Your task to perform on an android device: check the backup settings in the google photos Image 0: 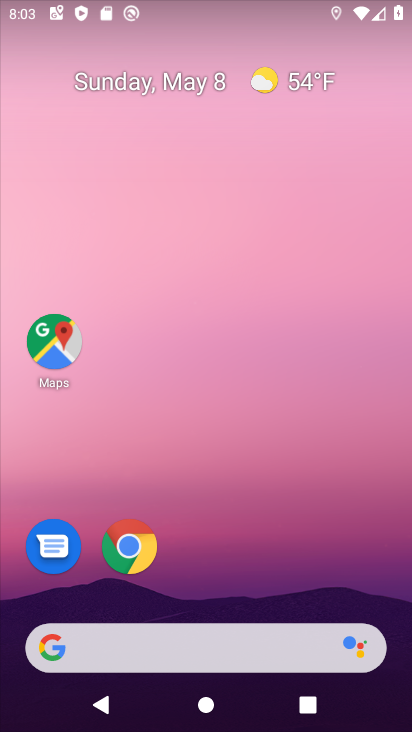
Step 0: drag from (400, 642) to (378, 237)
Your task to perform on an android device: check the backup settings in the google photos Image 1: 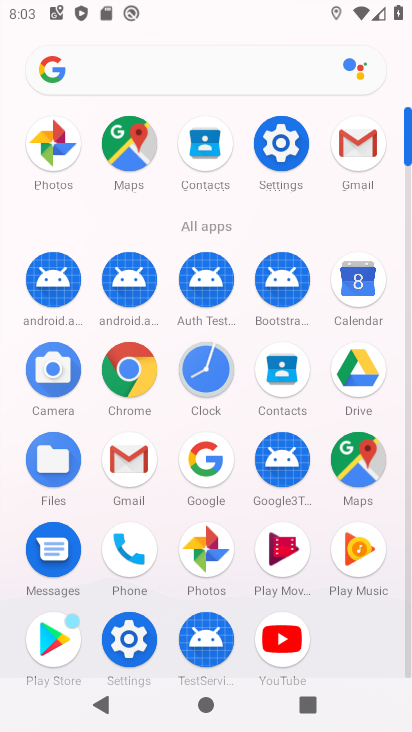
Step 1: click (201, 553)
Your task to perform on an android device: check the backup settings in the google photos Image 2: 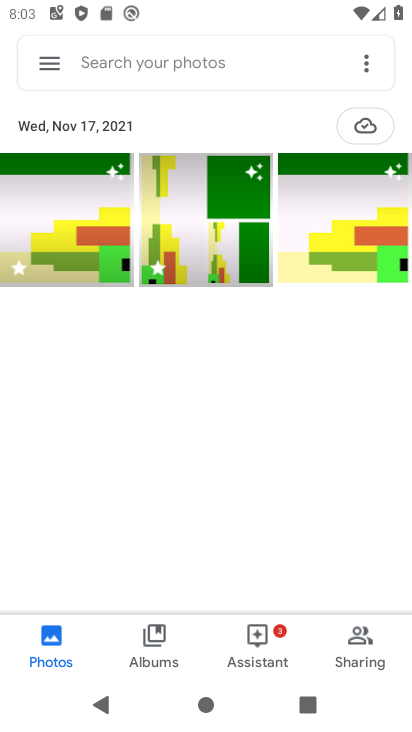
Step 2: click (46, 61)
Your task to perform on an android device: check the backup settings in the google photos Image 3: 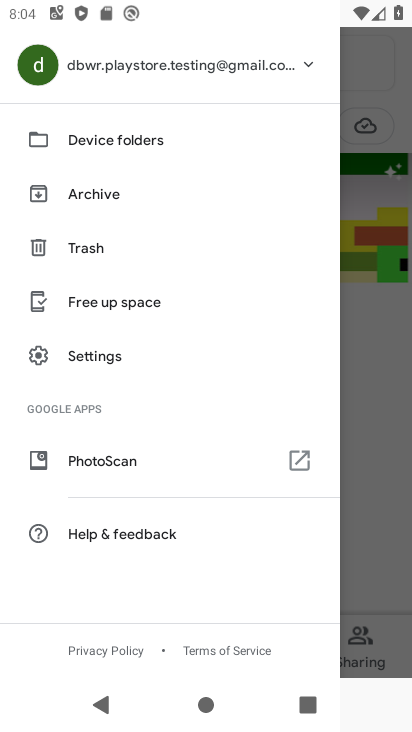
Step 3: click (114, 533)
Your task to perform on an android device: check the backup settings in the google photos Image 4: 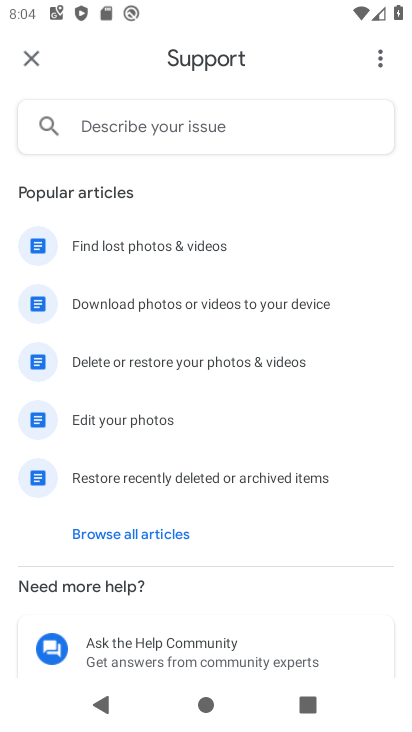
Step 4: press back button
Your task to perform on an android device: check the backup settings in the google photos Image 5: 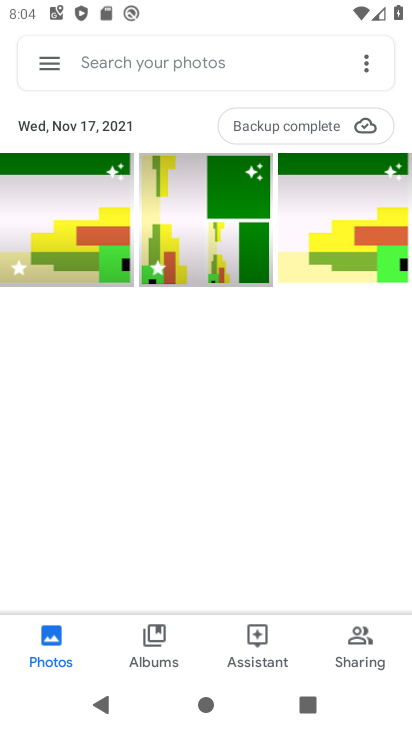
Step 5: click (33, 60)
Your task to perform on an android device: check the backup settings in the google photos Image 6: 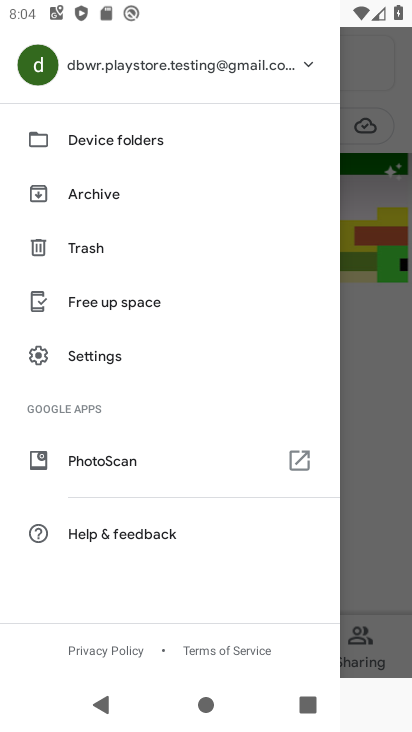
Step 6: click (78, 353)
Your task to perform on an android device: check the backup settings in the google photos Image 7: 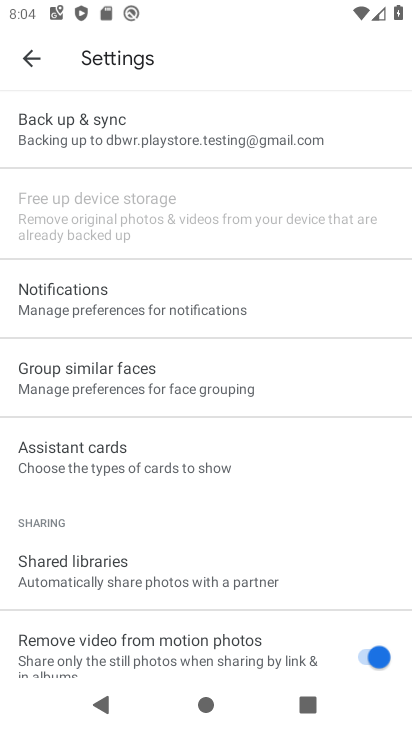
Step 7: click (84, 122)
Your task to perform on an android device: check the backup settings in the google photos Image 8: 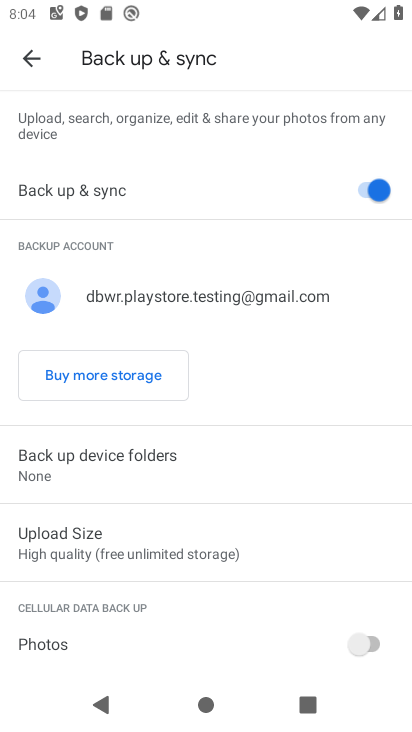
Step 8: task complete